Your task to perform on an android device: Go to accessibility settings Image 0: 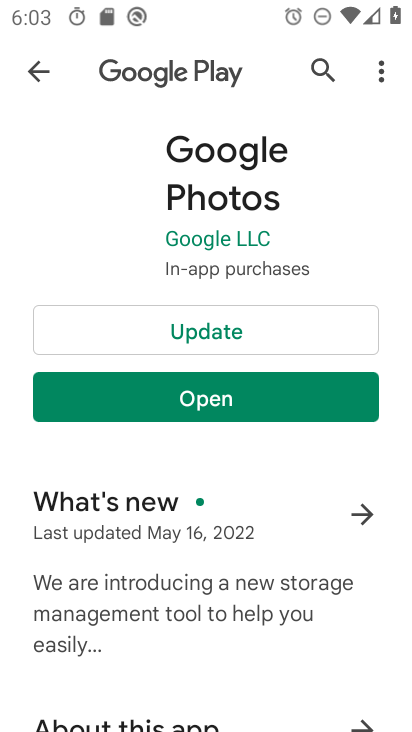
Step 0: drag from (210, 602) to (208, 113)
Your task to perform on an android device: Go to accessibility settings Image 1: 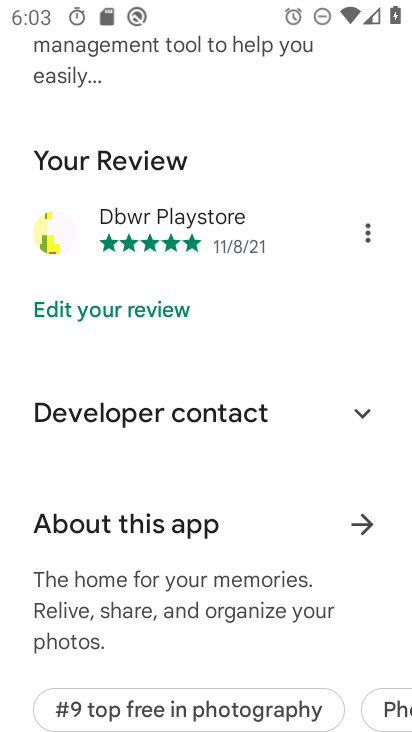
Step 1: press home button
Your task to perform on an android device: Go to accessibility settings Image 2: 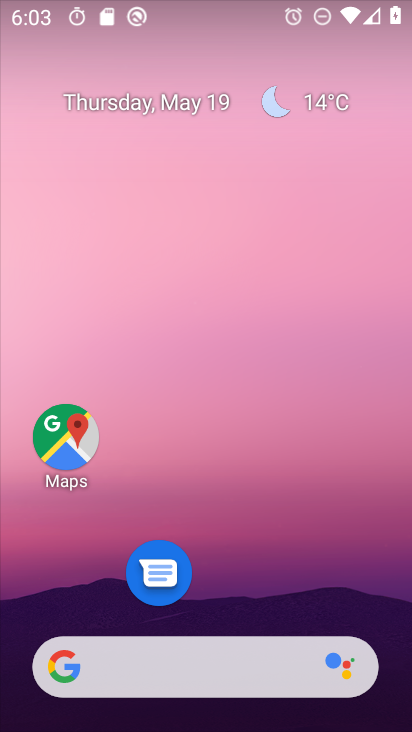
Step 2: drag from (237, 570) to (205, 97)
Your task to perform on an android device: Go to accessibility settings Image 3: 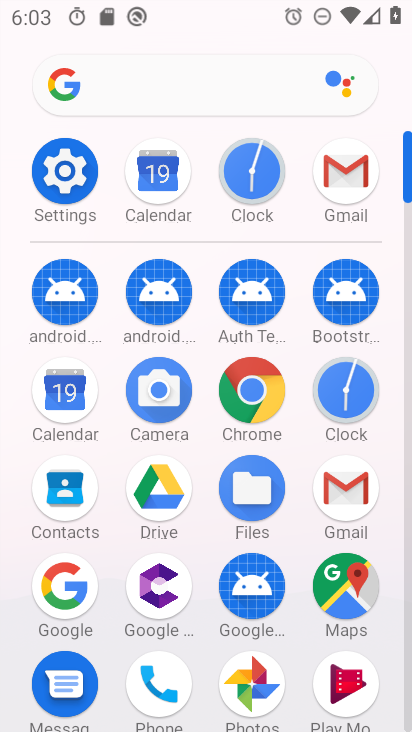
Step 3: click (252, 419)
Your task to perform on an android device: Go to accessibility settings Image 4: 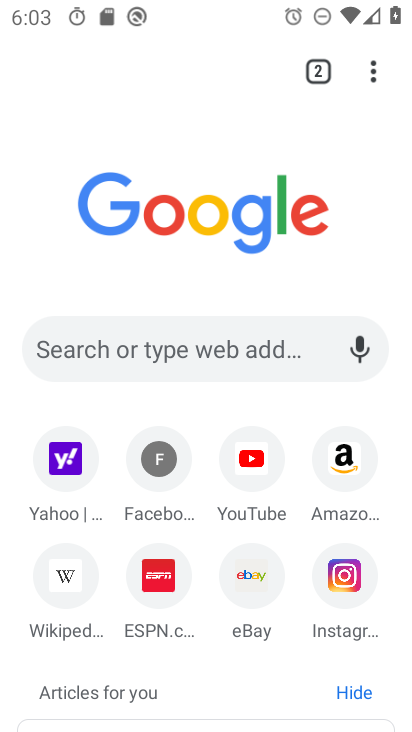
Step 4: press home button
Your task to perform on an android device: Go to accessibility settings Image 5: 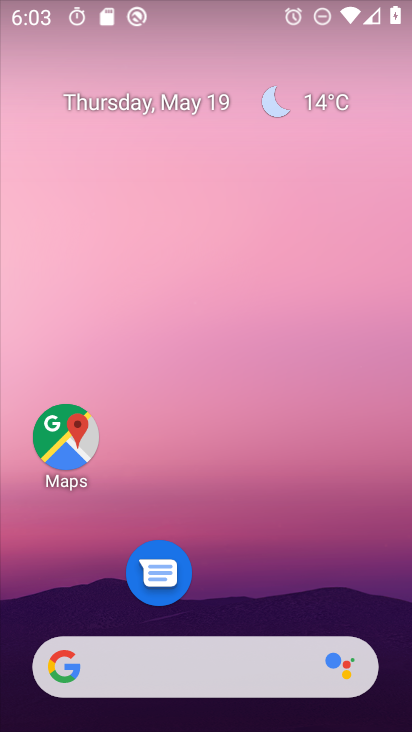
Step 5: drag from (219, 565) to (233, 163)
Your task to perform on an android device: Go to accessibility settings Image 6: 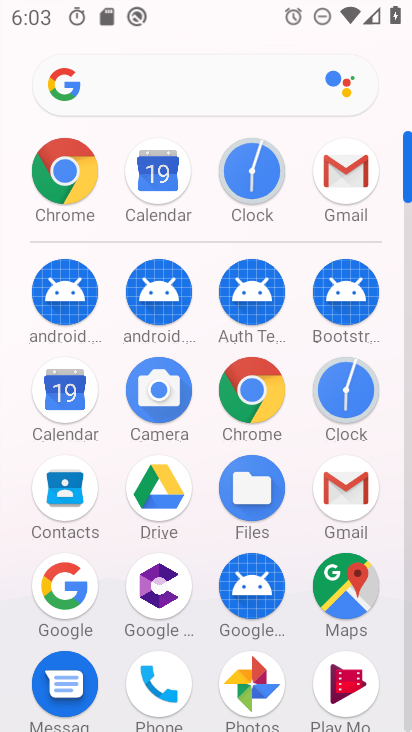
Step 6: drag from (277, 578) to (286, 198)
Your task to perform on an android device: Go to accessibility settings Image 7: 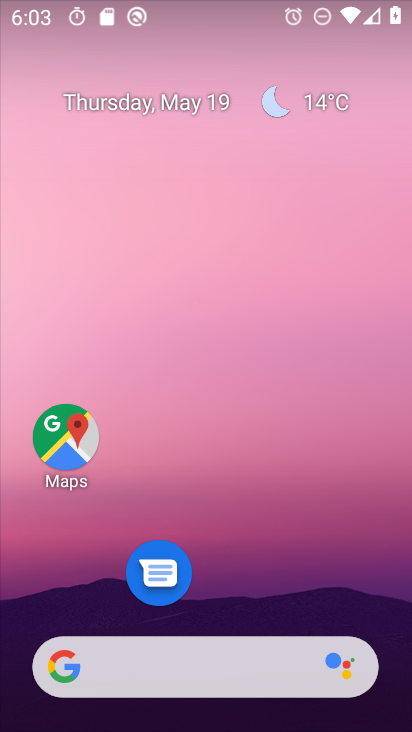
Step 7: drag from (207, 576) to (230, 61)
Your task to perform on an android device: Go to accessibility settings Image 8: 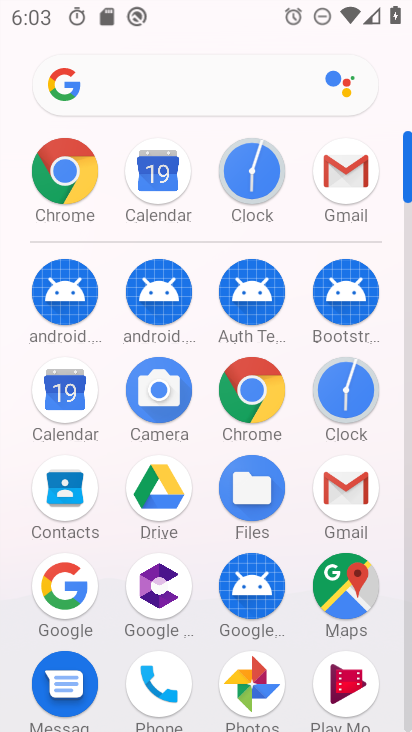
Step 8: drag from (191, 562) to (212, 157)
Your task to perform on an android device: Go to accessibility settings Image 9: 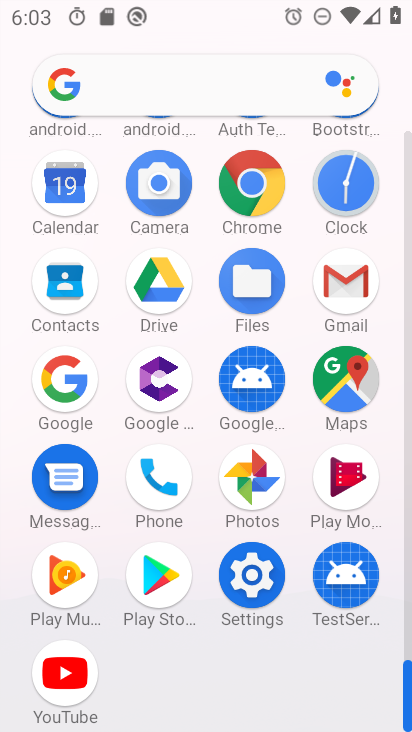
Step 9: click (261, 583)
Your task to perform on an android device: Go to accessibility settings Image 10: 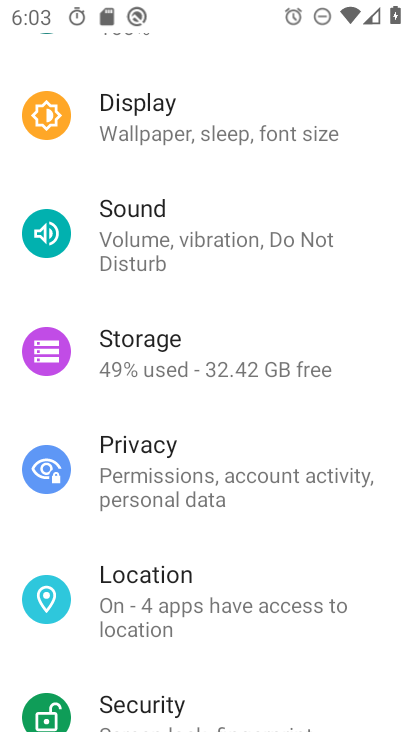
Step 10: drag from (206, 545) to (218, 170)
Your task to perform on an android device: Go to accessibility settings Image 11: 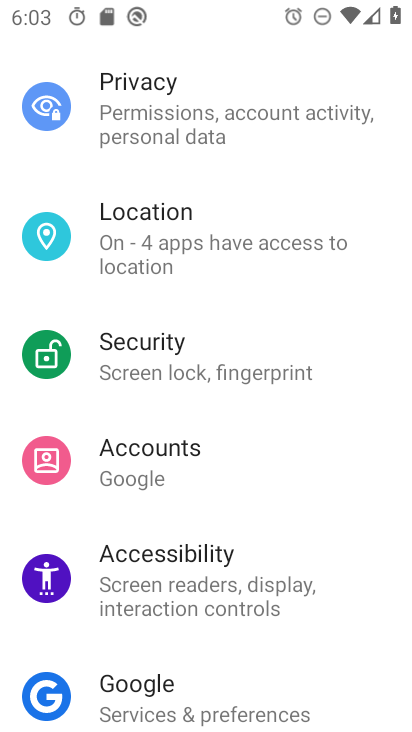
Step 11: click (135, 572)
Your task to perform on an android device: Go to accessibility settings Image 12: 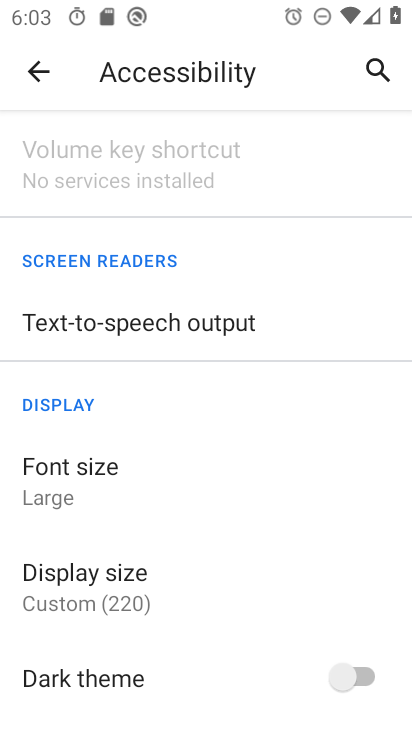
Step 12: task complete